Your task to perform on an android device: Open wifi settings Image 0: 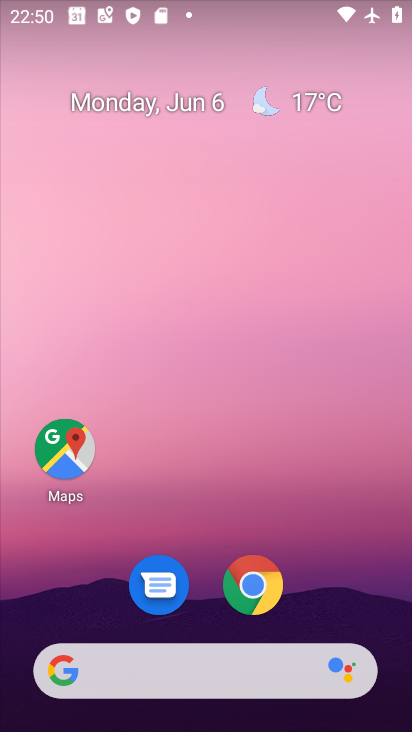
Step 0: drag from (307, 62) to (312, 11)
Your task to perform on an android device: Open wifi settings Image 1: 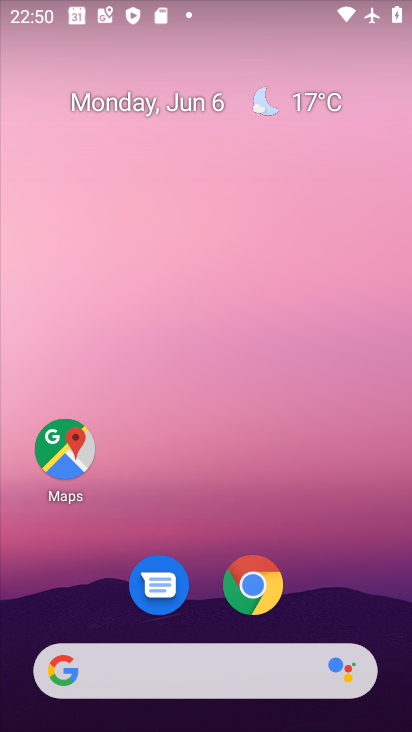
Step 1: drag from (185, 520) to (227, 19)
Your task to perform on an android device: Open wifi settings Image 2: 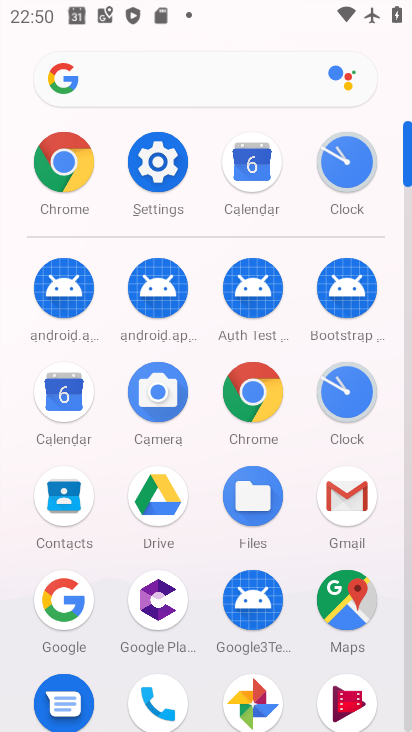
Step 2: click (171, 150)
Your task to perform on an android device: Open wifi settings Image 3: 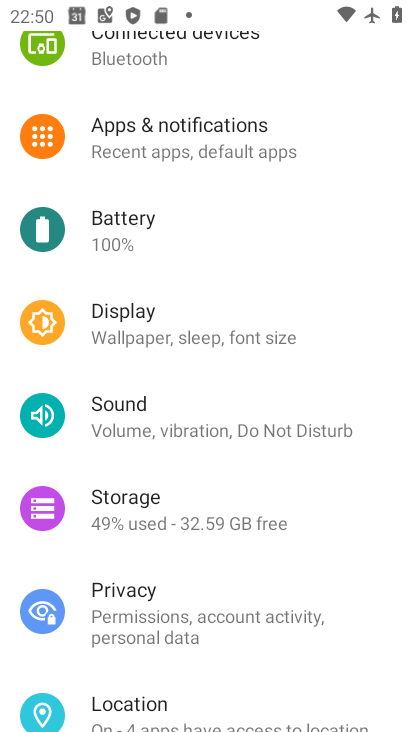
Step 3: drag from (197, 243) to (241, 543)
Your task to perform on an android device: Open wifi settings Image 4: 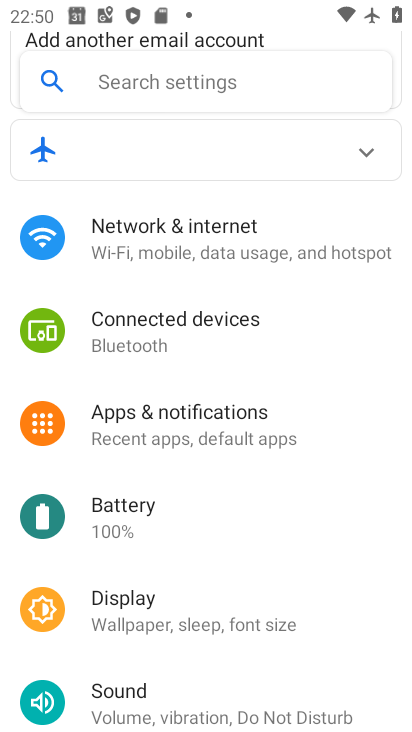
Step 4: click (213, 240)
Your task to perform on an android device: Open wifi settings Image 5: 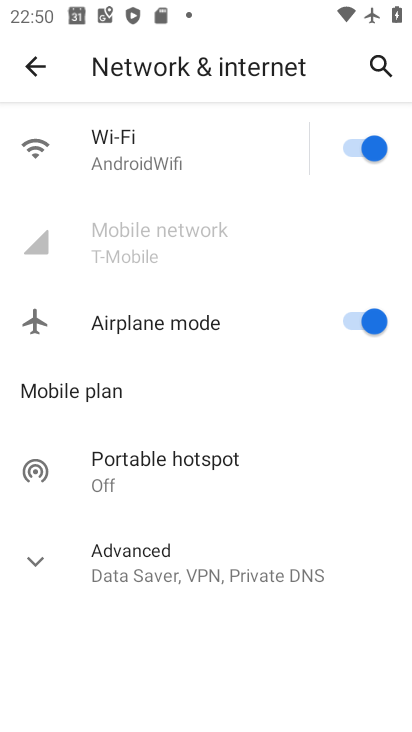
Step 5: click (144, 145)
Your task to perform on an android device: Open wifi settings Image 6: 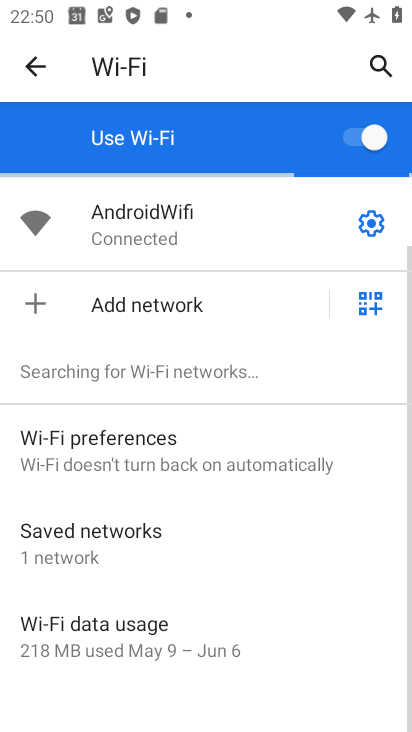
Step 6: task complete